Your task to perform on an android device: Open Android settings Image 0: 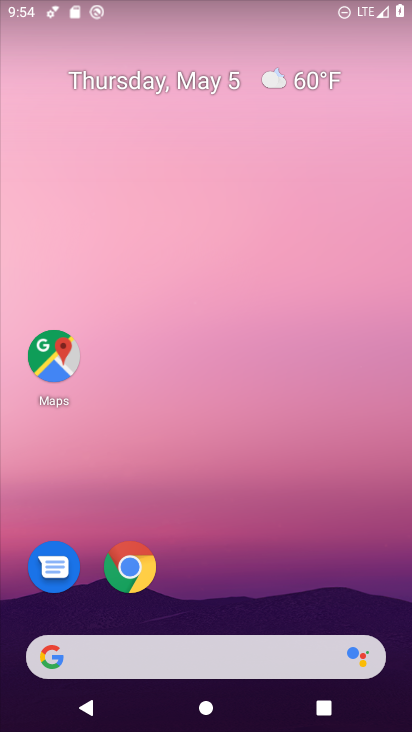
Step 0: drag from (223, 714) to (223, 133)
Your task to perform on an android device: Open Android settings Image 1: 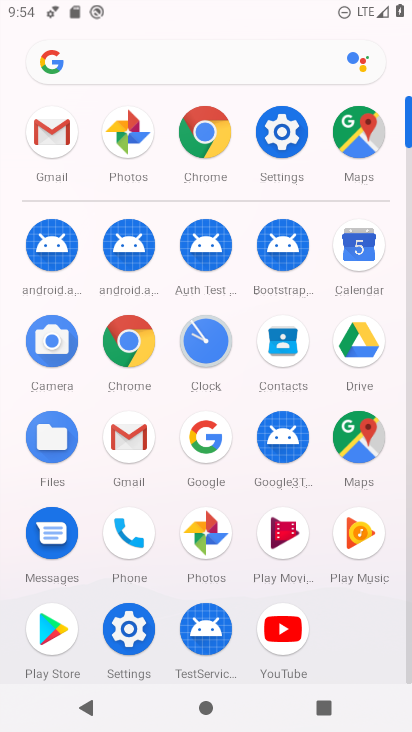
Step 1: click (282, 129)
Your task to perform on an android device: Open Android settings Image 2: 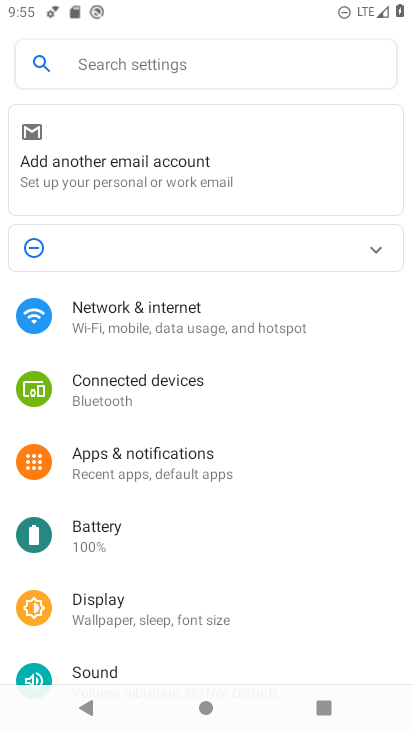
Step 2: task complete